Your task to perform on an android device: Open the Play Movies app and select the watchlist tab. Image 0: 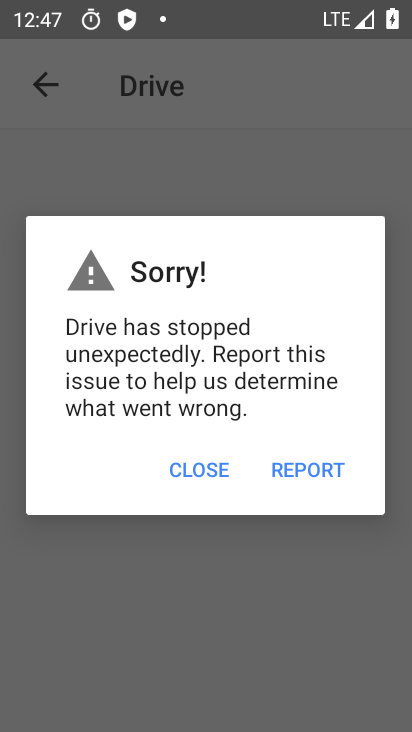
Step 0: press home button
Your task to perform on an android device: Open the Play Movies app and select the watchlist tab. Image 1: 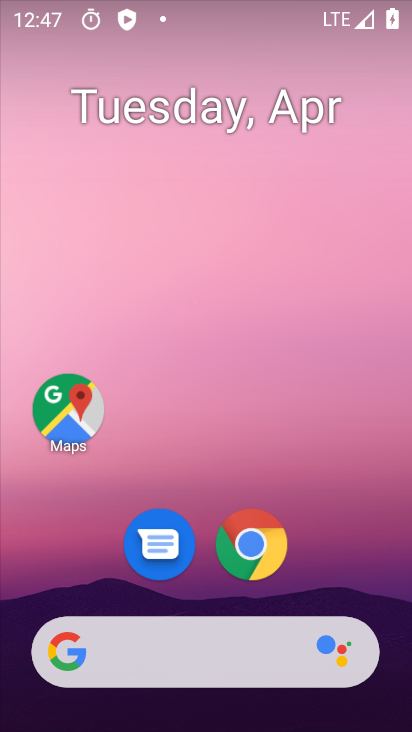
Step 1: drag from (397, 594) to (377, 71)
Your task to perform on an android device: Open the Play Movies app and select the watchlist tab. Image 2: 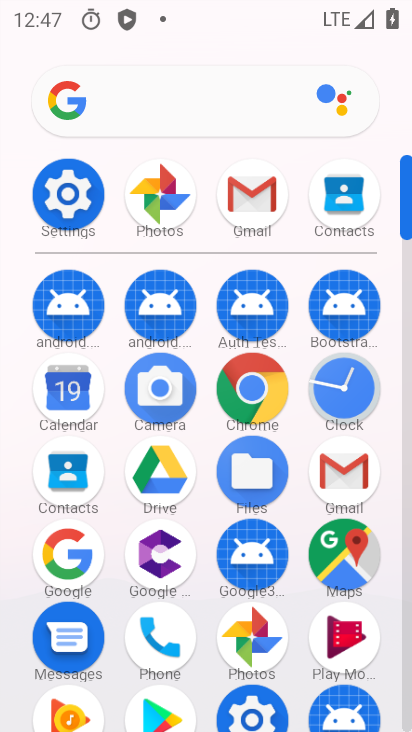
Step 2: click (347, 641)
Your task to perform on an android device: Open the Play Movies app and select the watchlist tab. Image 3: 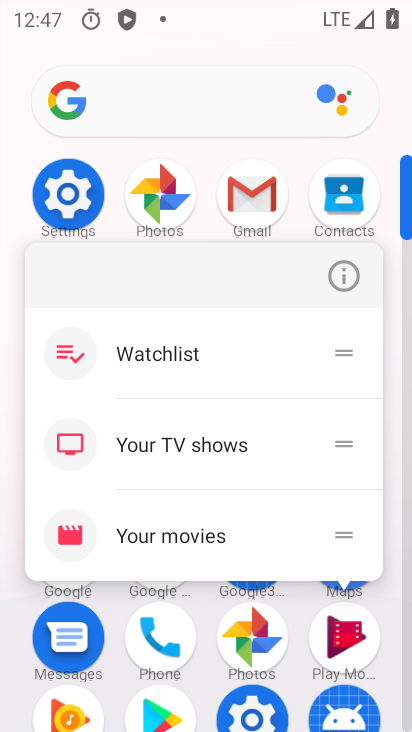
Step 3: click (343, 633)
Your task to perform on an android device: Open the Play Movies app and select the watchlist tab. Image 4: 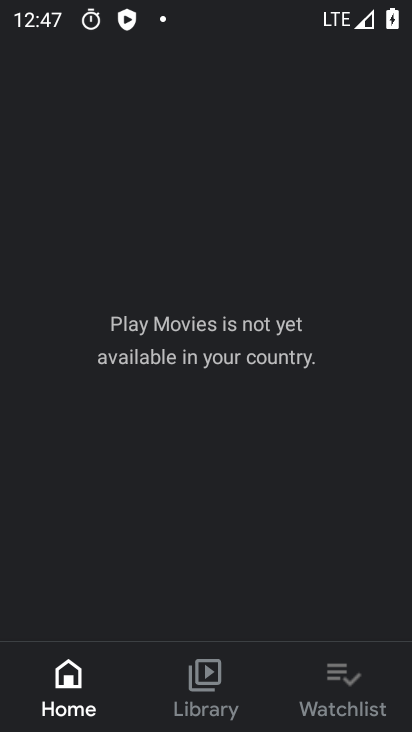
Step 4: click (339, 695)
Your task to perform on an android device: Open the Play Movies app and select the watchlist tab. Image 5: 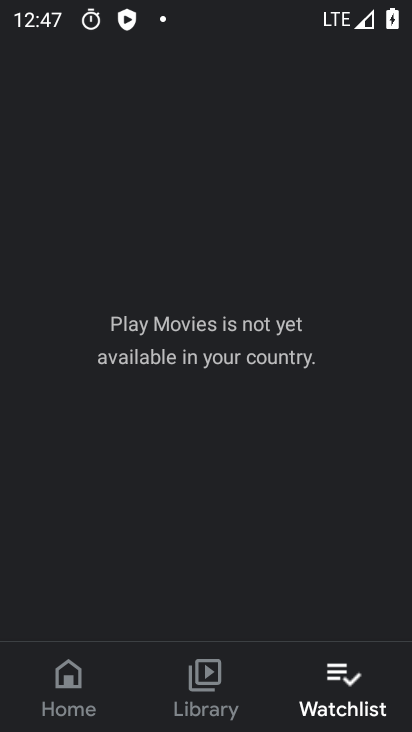
Step 5: task complete